Your task to perform on an android device: Play the last video I watched on Youtube Image 0: 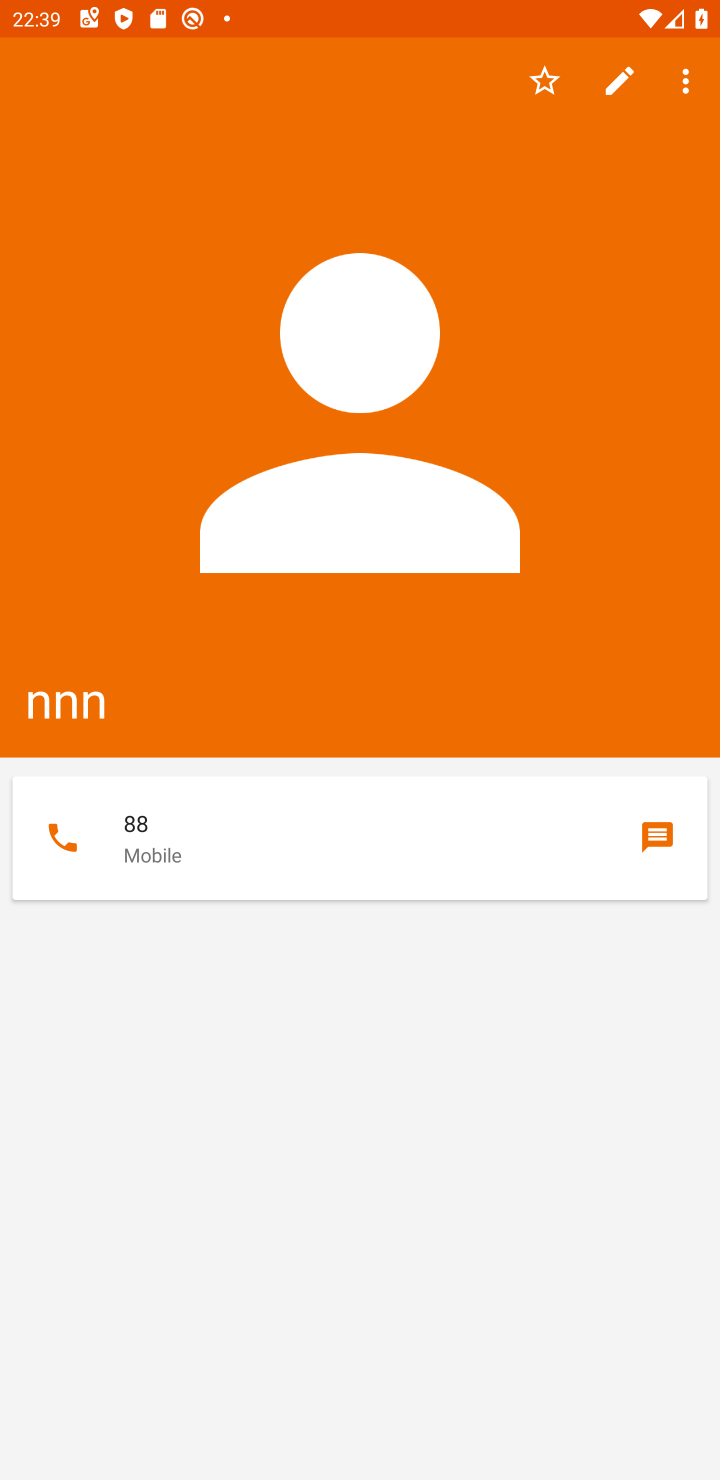
Step 0: press home button
Your task to perform on an android device: Play the last video I watched on Youtube Image 1: 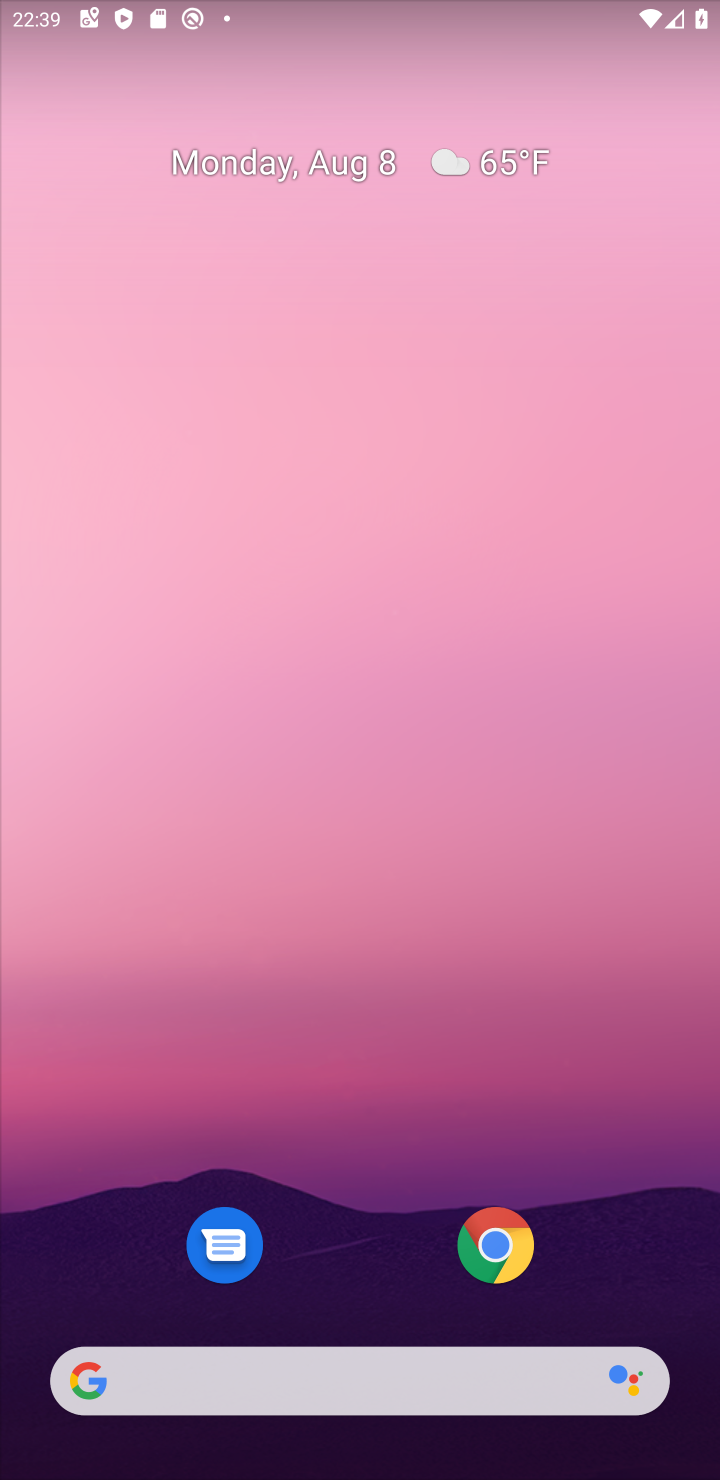
Step 1: drag from (310, 1098) to (275, 351)
Your task to perform on an android device: Play the last video I watched on Youtube Image 2: 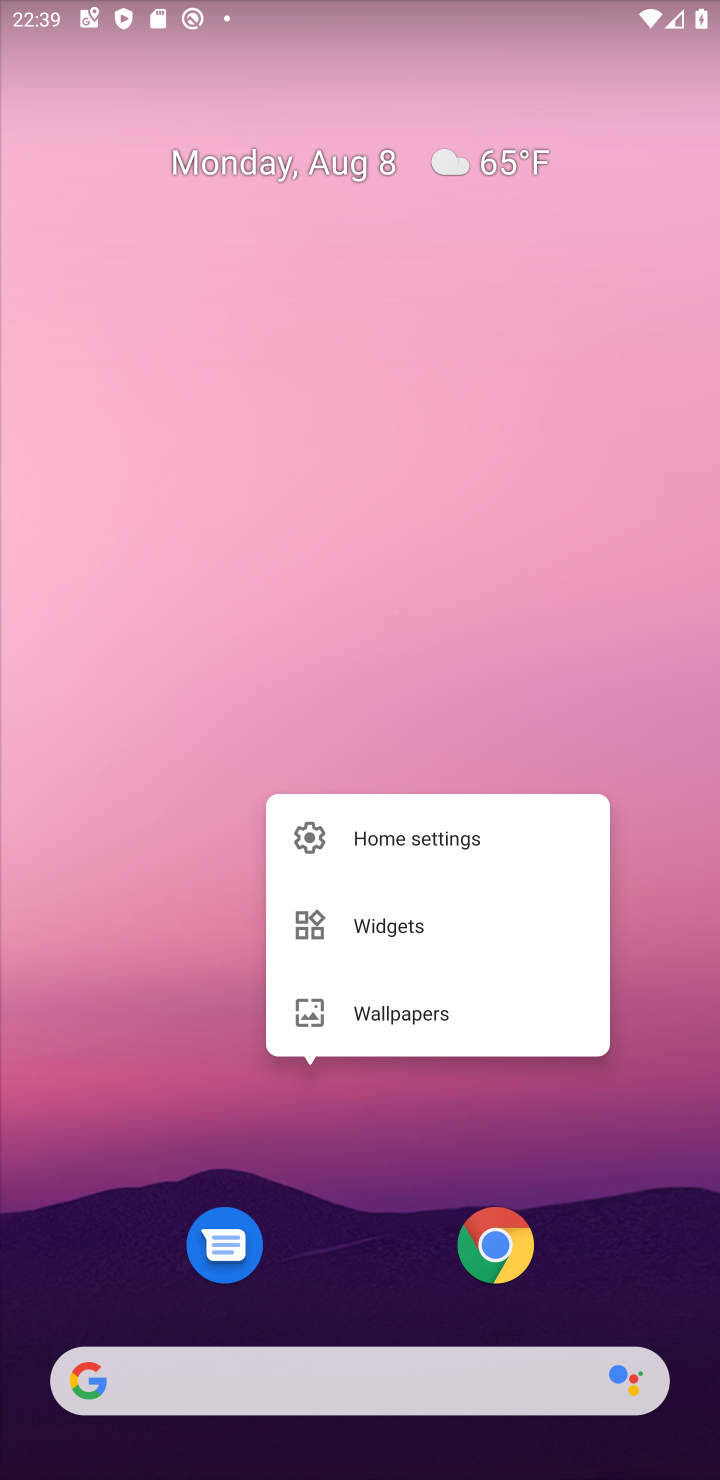
Step 2: click (388, 644)
Your task to perform on an android device: Play the last video I watched on Youtube Image 3: 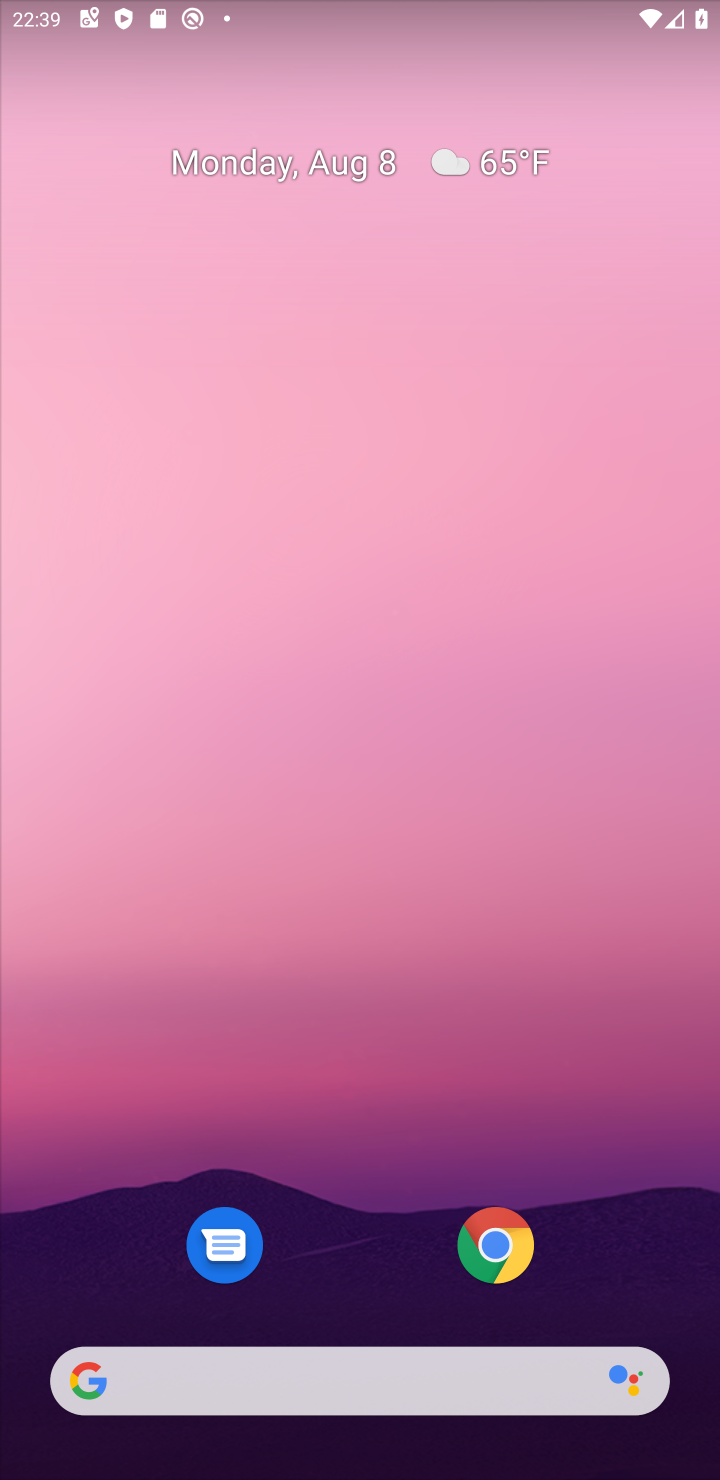
Step 3: drag from (401, 1206) to (365, 456)
Your task to perform on an android device: Play the last video I watched on Youtube Image 4: 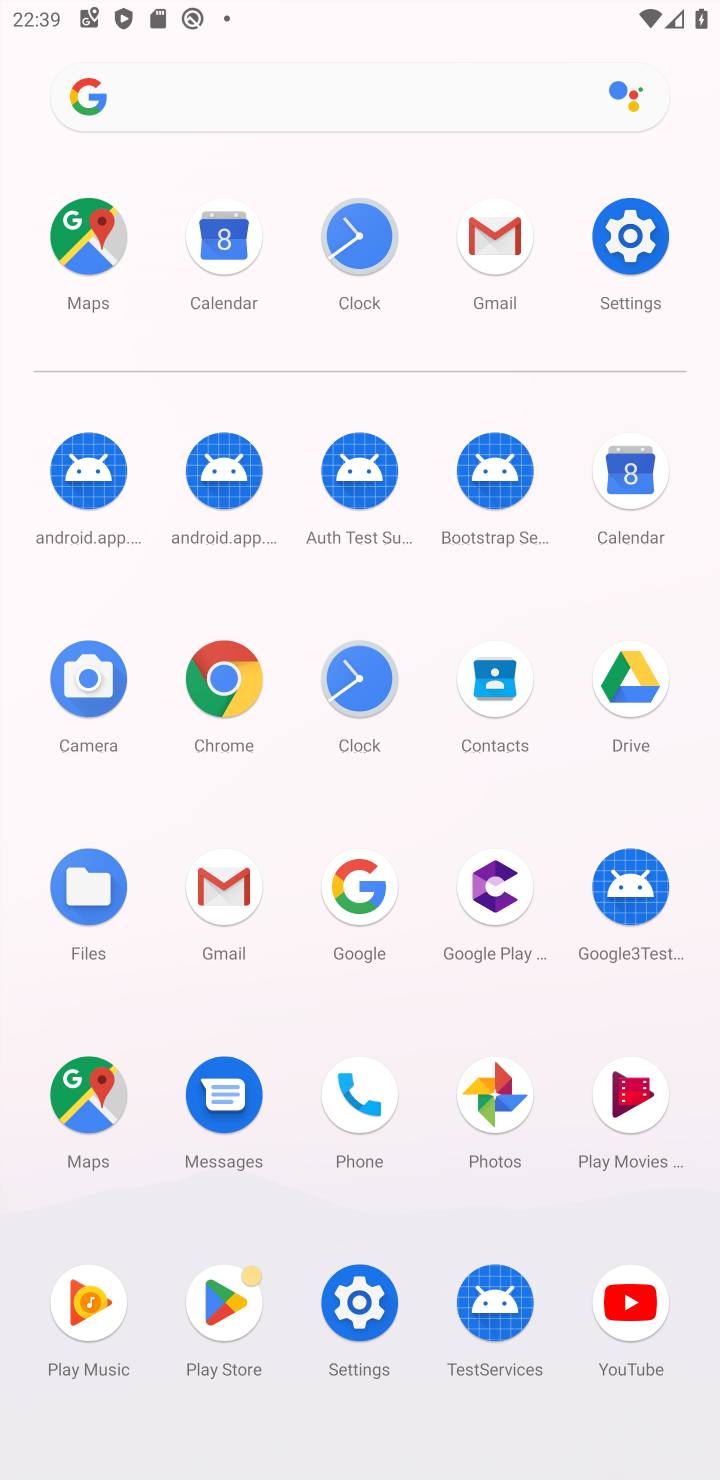
Step 4: click (648, 1305)
Your task to perform on an android device: Play the last video I watched on Youtube Image 5: 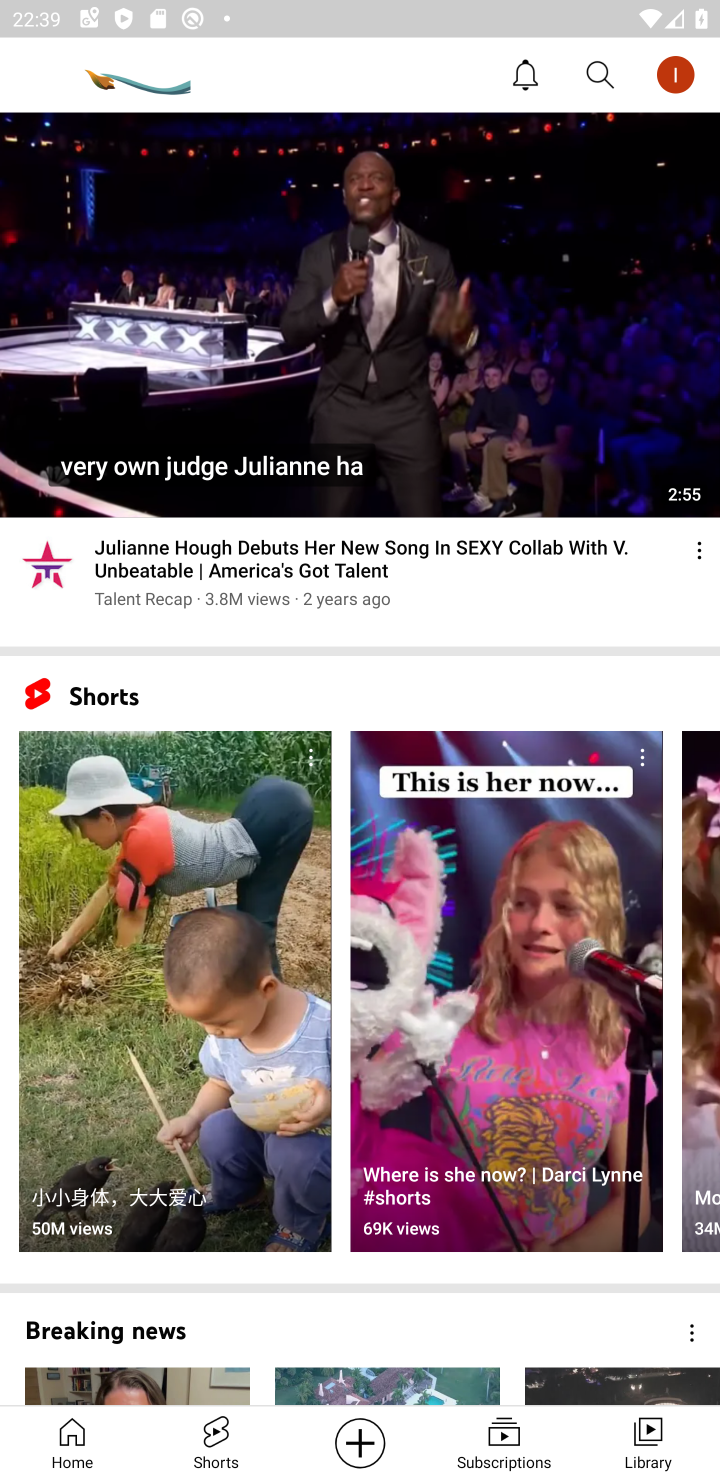
Step 5: click (652, 1448)
Your task to perform on an android device: Play the last video I watched on Youtube Image 6: 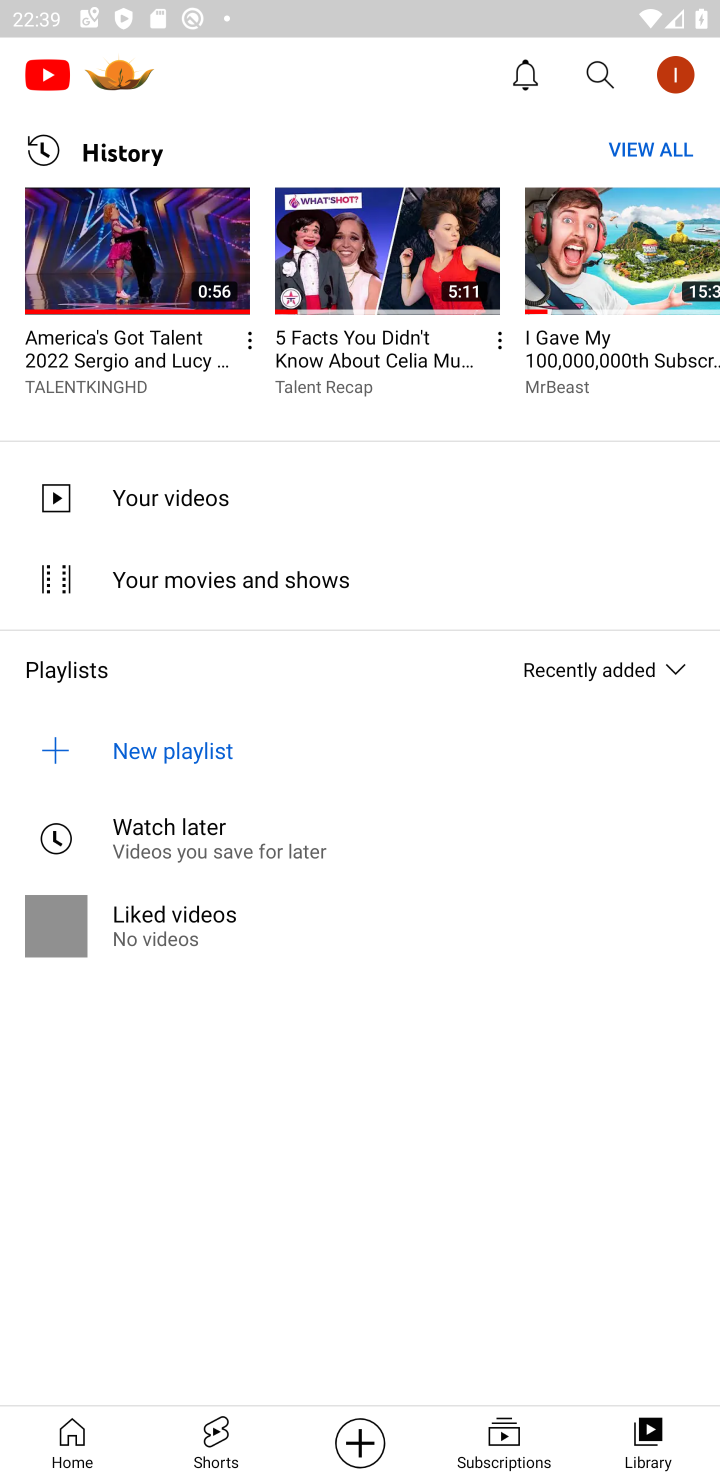
Step 6: click (117, 266)
Your task to perform on an android device: Play the last video I watched on Youtube Image 7: 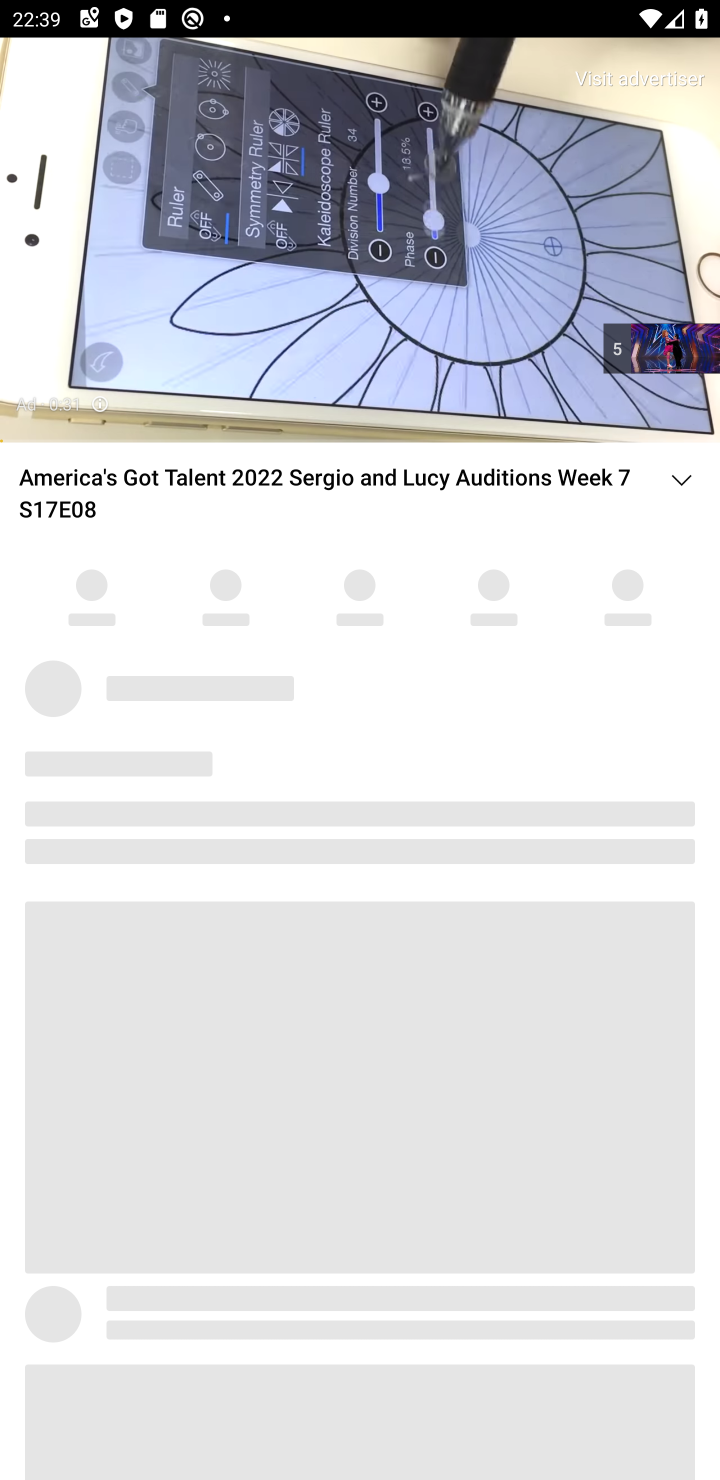
Step 7: task complete